Your task to perform on an android device: toggle priority inbox in the gmail app Image 0: 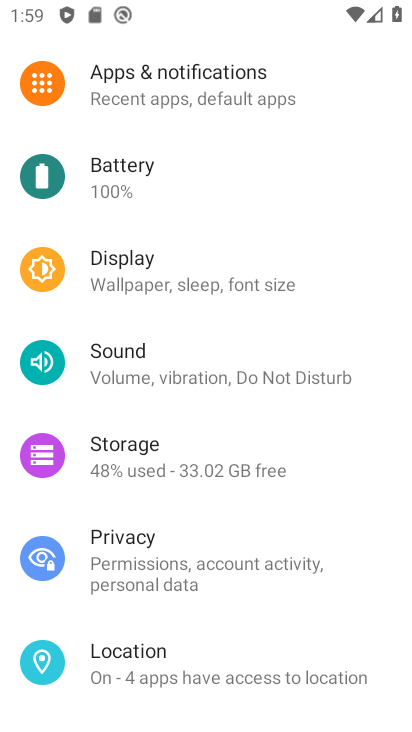
Step 0: press home button
Your task to perform on an android device: toggle priority inbox in the gmail app Image 1: 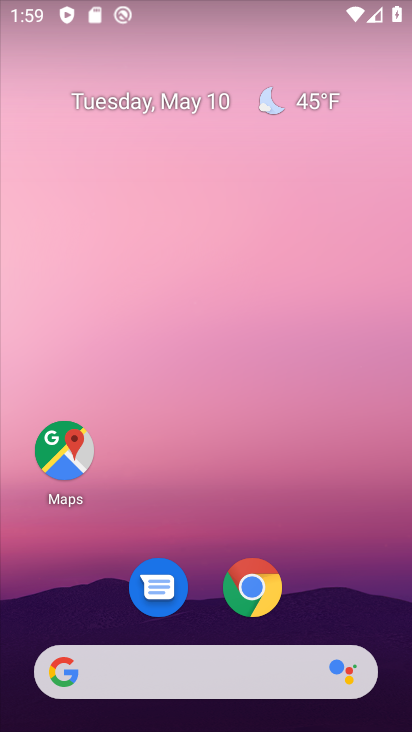
Step 1: drag from (328, 616) to (359, 233)
Your task to perform on an android device: toggle priority inbox in the gmail app Image 2: 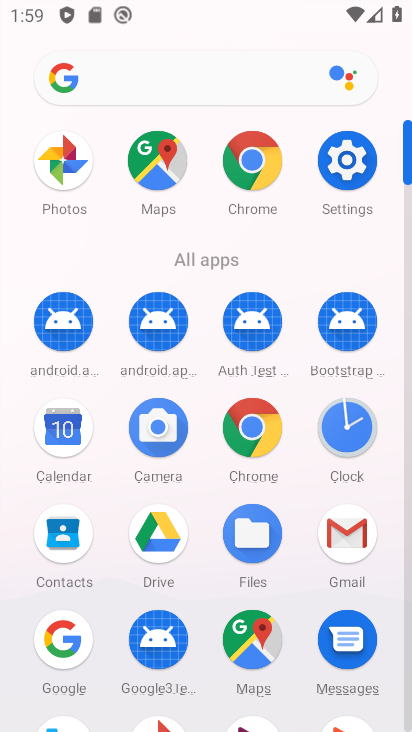
Step 2: click (341, 530)
Your task to perform on an android device: toggle priority inbox in the gmail app Image 3: 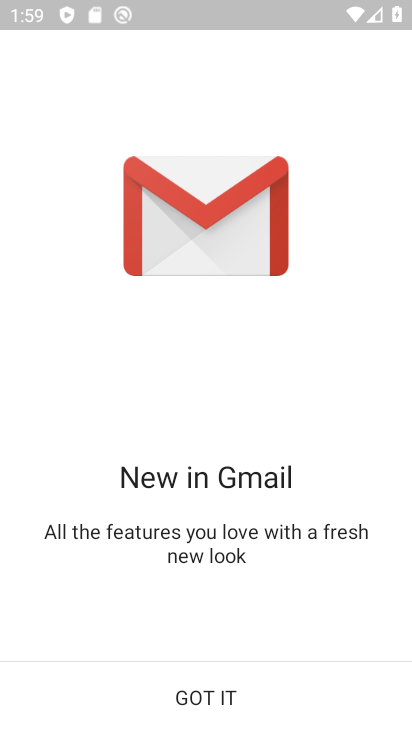
Step 3: click (178, 685)
Your task to perform on an android device: toggle priority inbox in the gmail app Image 4: 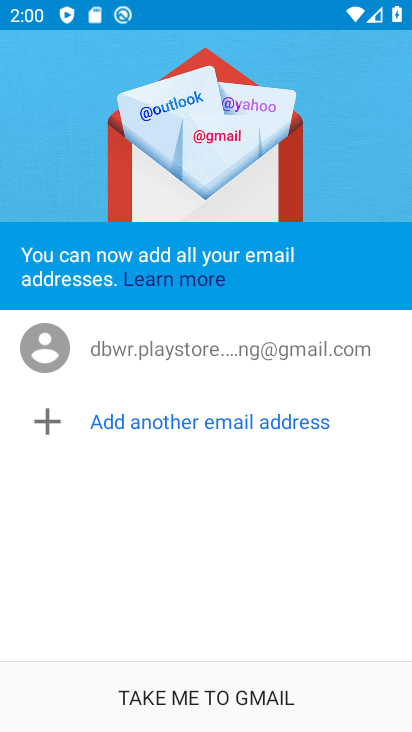
Step 4: click (192, 700)
Your task to perform on an android device: toggle priority inbox in the gmail app Image 5: 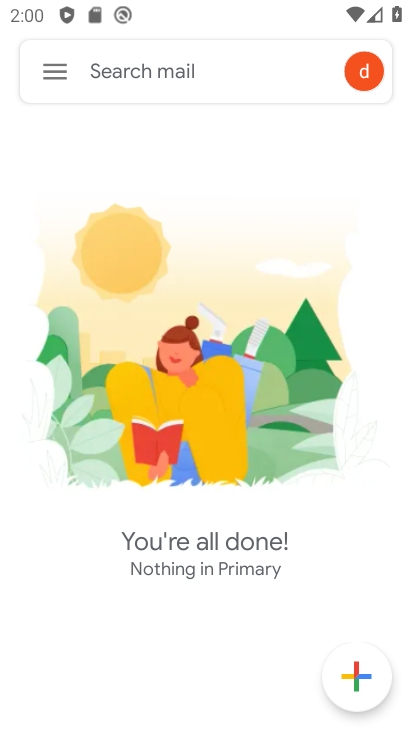
Step 5: click (62, 72)
Your task to perform on an android device: toggle priority inbox in the gmail app Image 6: 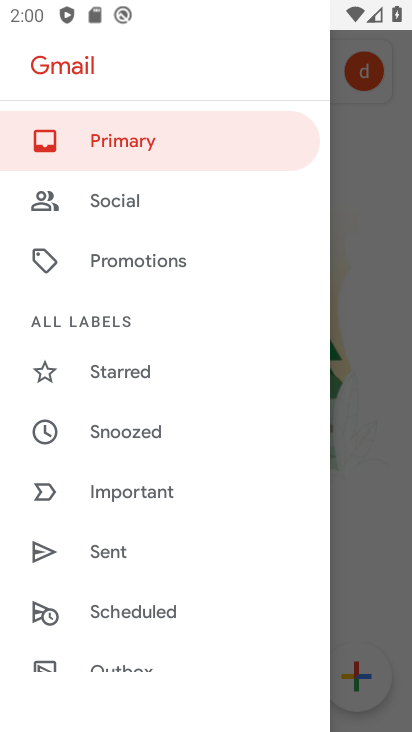
Step 6: drag from (185, 607) to (222, 371)
Your task to perform on an android device: toggle priority inbox in the gmail app Image 7: 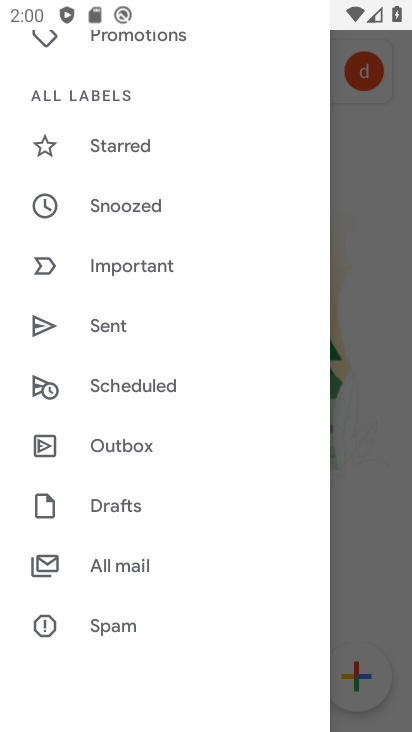
Step 7: drag from (132, 630) to (146, 290)
Your task to perform on an android device: toggle priority inbox in the gmail app Image 8: 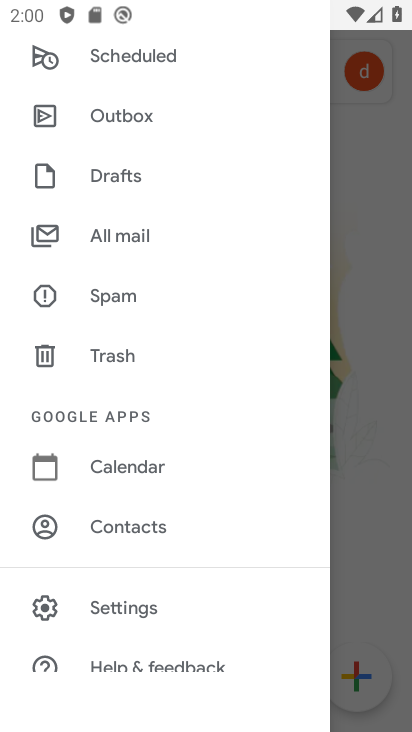
Step 8: click (132, 602)
Your task to perform on an android device: toggle priority inbox in the gmail app Image 9: 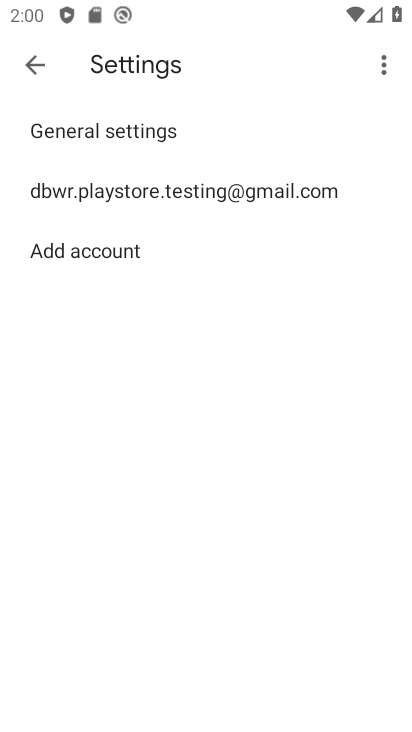
Step 9: click (194, 194)
Your task to perform on an android device: toggle priority inbox in the gmail app Image 10: 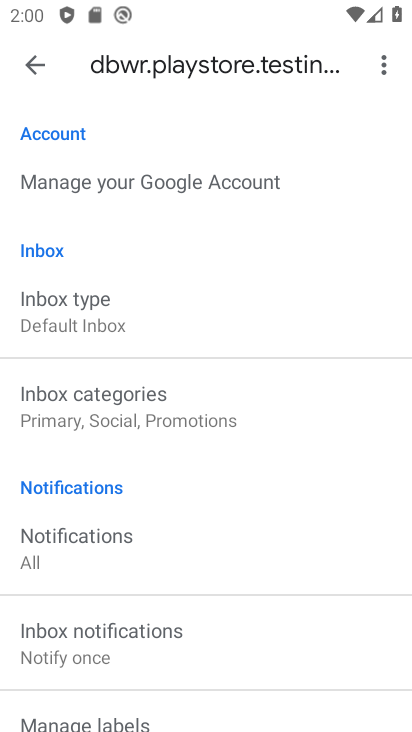
Step 10: click (71, 325)
Your task to perform on an android device: toggle priority inbox in the gmail app Image 11: 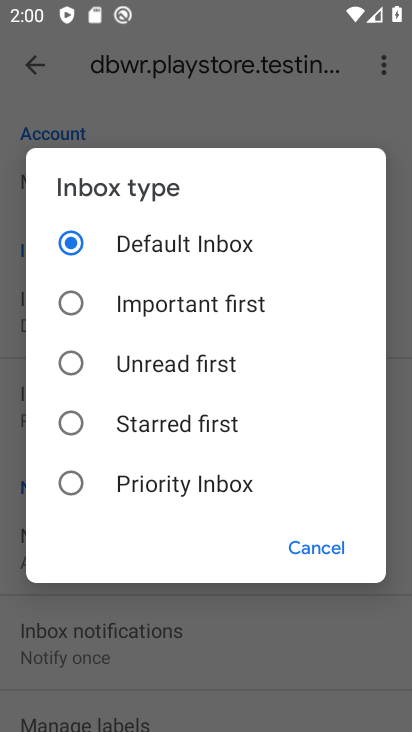
Step 11: click (76, 482)
Your task to perform on an android device: toggle priority inbox in the gmail app Image 12: 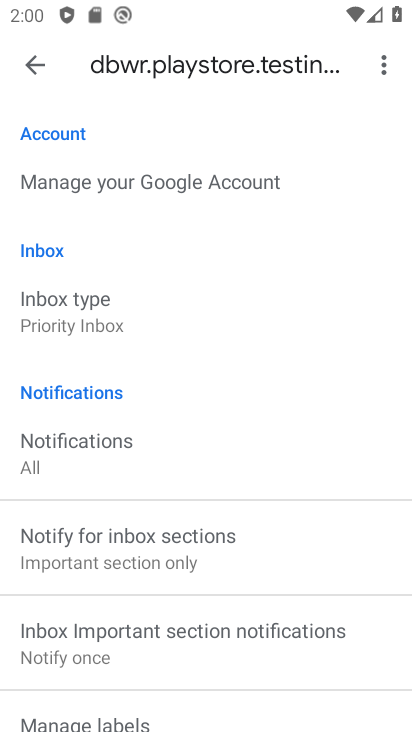
Step 12: task complete